Your task to perform on an android device: turn on wifi Image 0: 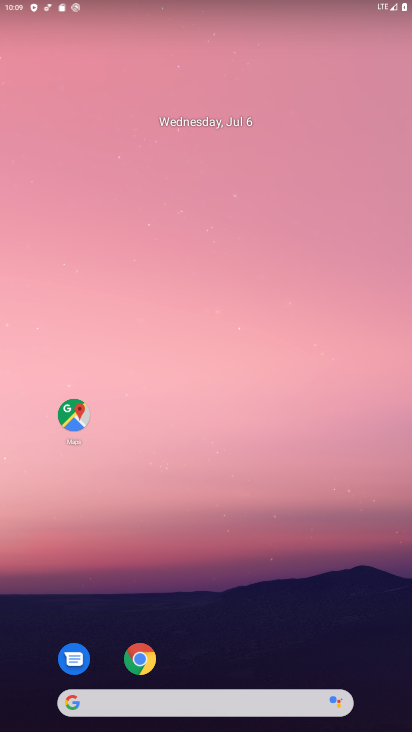
Step 0: press home button
Your task to perform on an android device: turn on wifi Image 1: 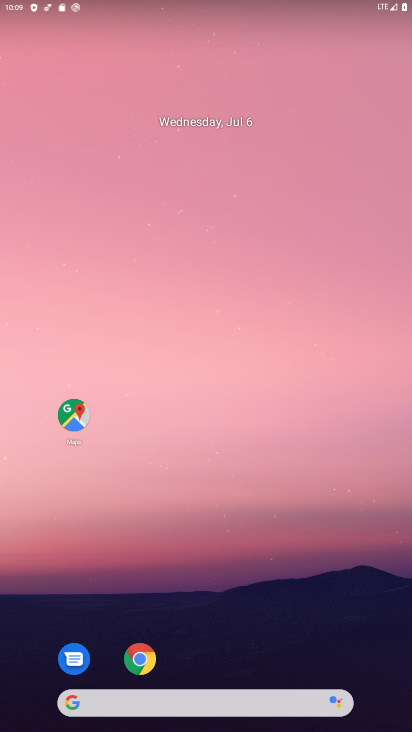
Step 1: drag from (196, 6) to (224, 469)
Your task to perform on an android device: turn on wifi Image 2: 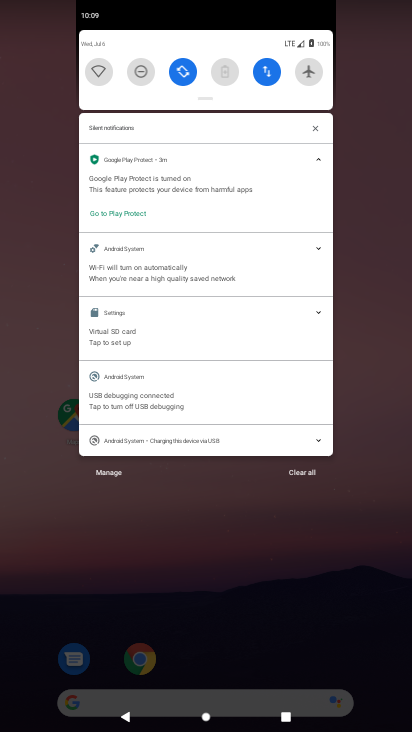
Step 2: click (94, 67)
Your task to perform on an android device: turn on wifi Image 3: 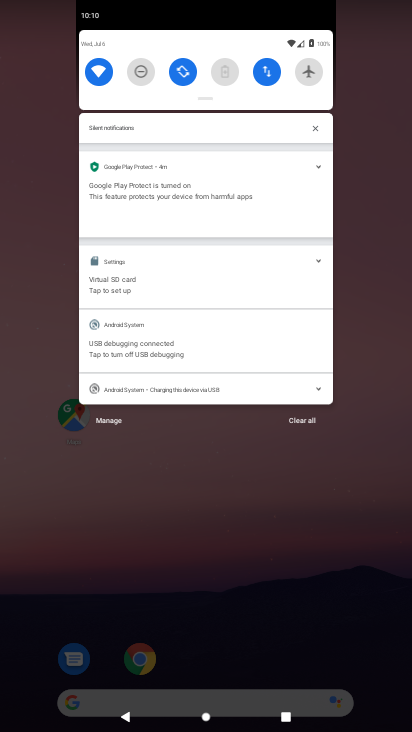
Step 3: task complete